Your task to perform on an android device: See recent photos Image 0: 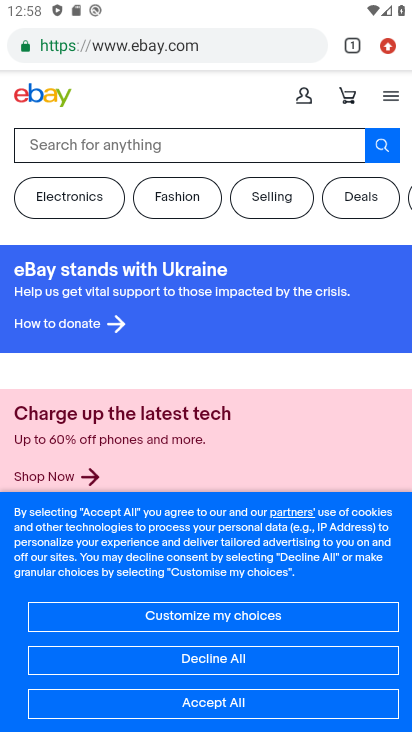
Step 0: task complete